Your task to perform on an android device: Open Amazon Image 0: 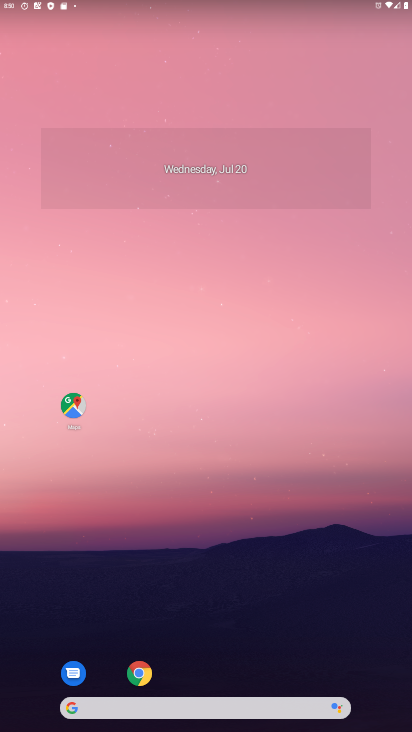
Step 0: click (141, 675)
Your task to perform on an android device: Open Amazon Image 1: 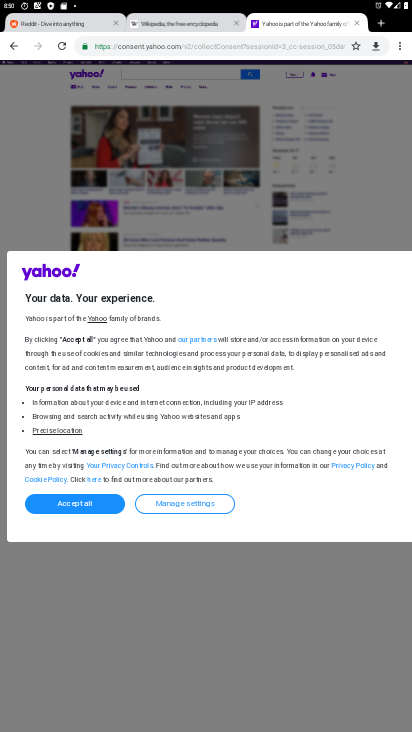
Step 1: press back button
Your task to perform on an android device: Open Amazon Image 2: 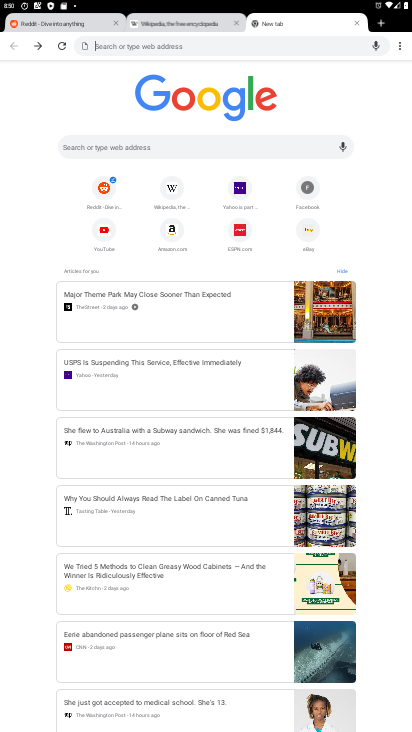
Step 2: click (172, 227)
Your task to perform on an android device: Open Amazon Image 3: 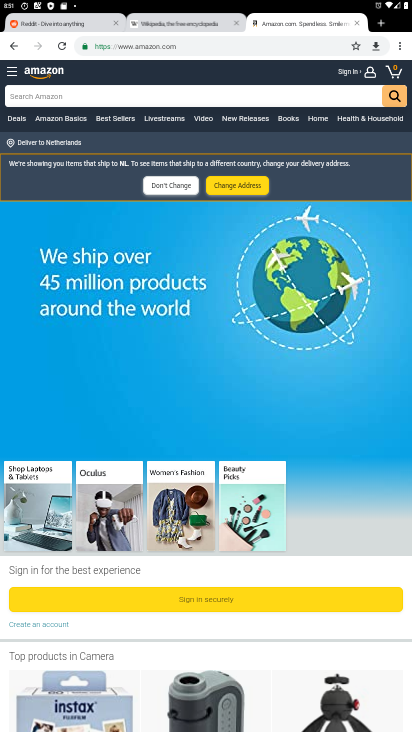
Step 3: task complete